Your task to perform on an android device: Set the phone to "Do not disturb". Image 0: 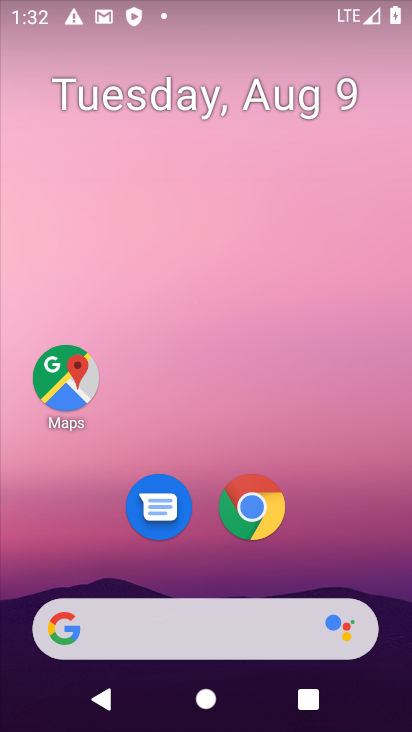
Step 0: drag from (295, 334) to (298, 96)
Your task to perform on an android device: Set the phone to "Do not disturb". Image 1: 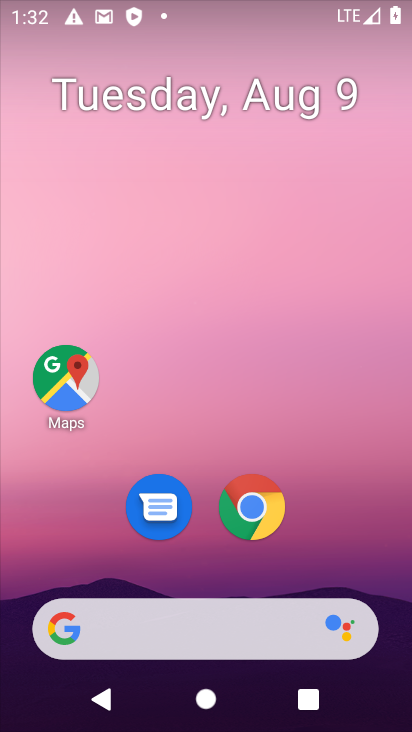
Step 1: drag from (217, 28) to (212, 437)
Your task to perform on an android device: Set the phone to "Do not disturb". Image 2: 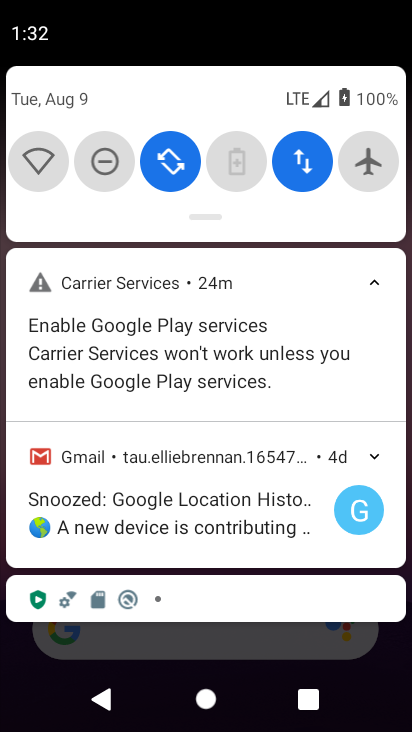
Step 2: click (117, 161)
Your task to perform on an android device: Set the phone to "Do not disturb". Image 3: 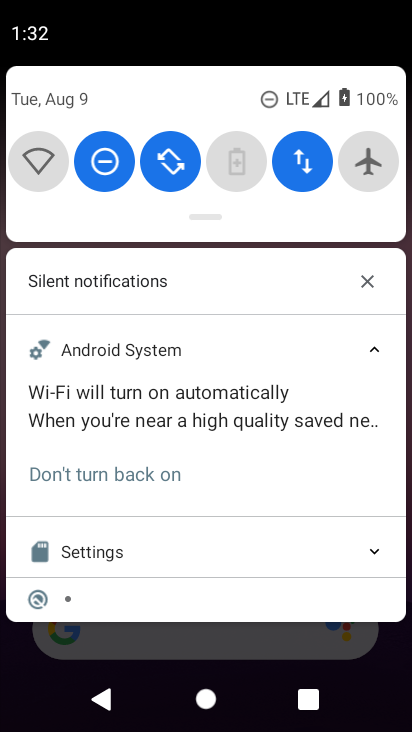
Step 3: task complete